Your task to perform on an android device: open chrome privacy settings Image 0: 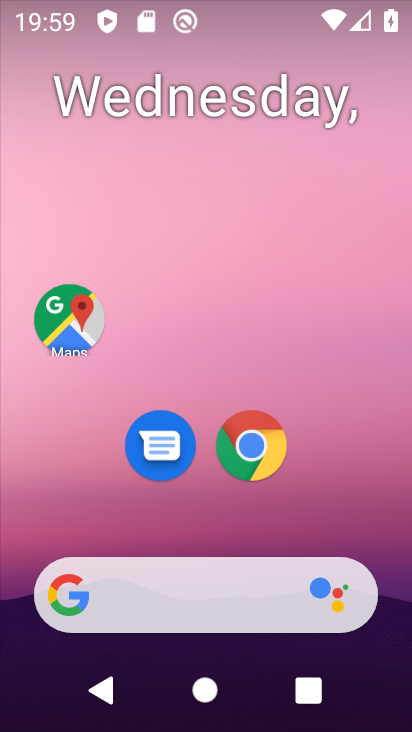
Step 0: drag from (337, 524) to (352, 278)
Your task to perform on an android device: open chrome privacy settings Image 1: 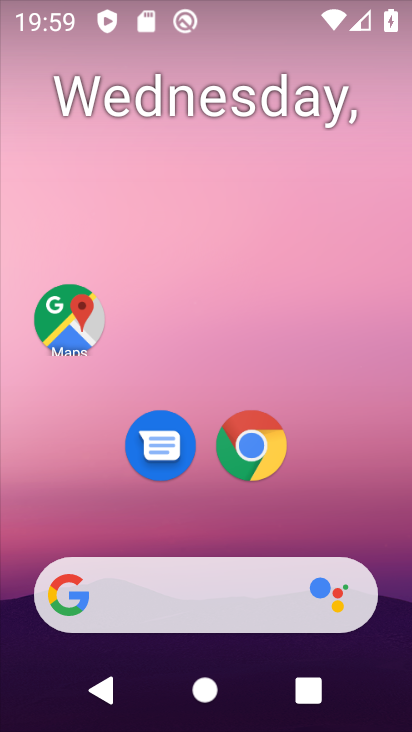
Step 1: click (241, 425)
Your task to perform on an android device: open chrome privacy settings Image 2: 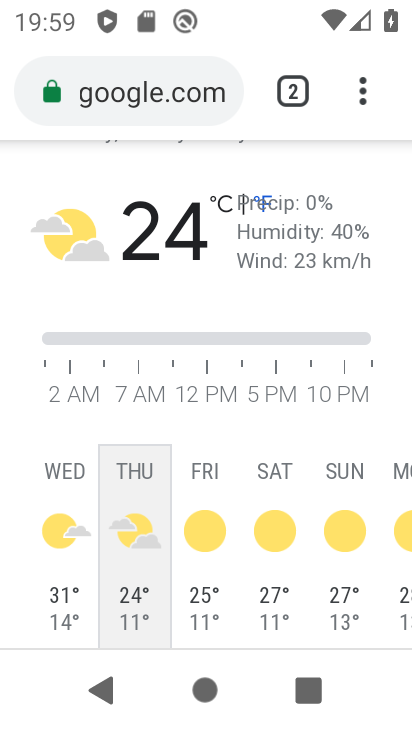
Step 2: click (357, 89)
Your task to perform on an android device: open chrome privacy settings Image 3: 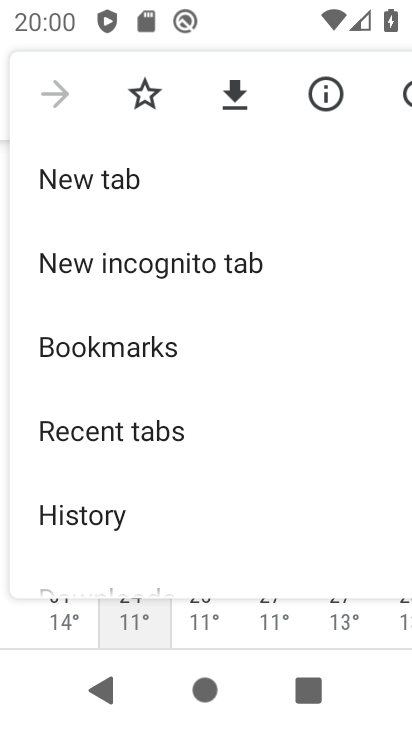
Step 3: drag from (203, 493) to (250, 261)
Your task to perform on an android device: open chrome privacy settings Image 4: 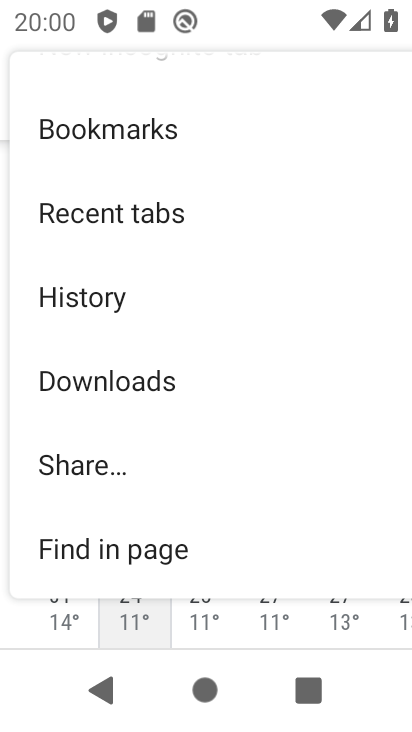
Step 4: drag from (200, 500) to (253, 193)
Your task to perform on an android device: open chrome privacy settings Image 5: 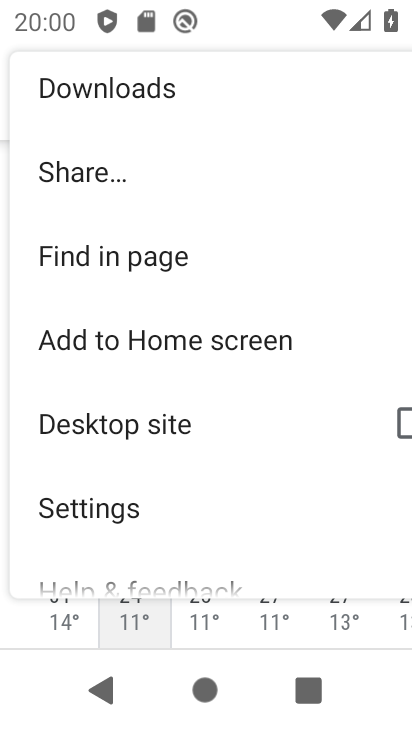
Step 5: click (121, 497)
Your task to perform on an android device: open chrome privacy settings Image 6: 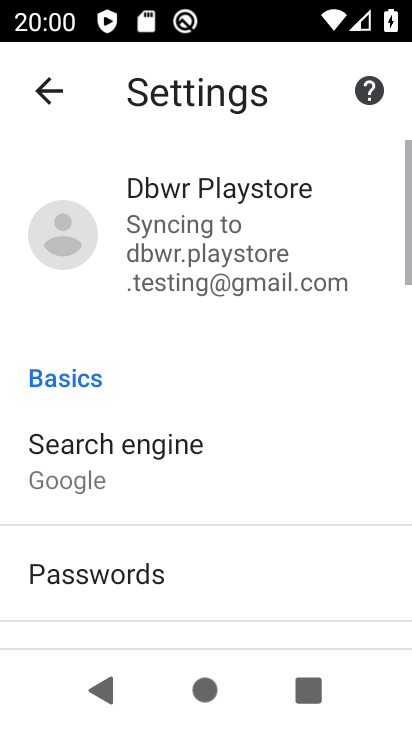
Step 6: drag from (100, 561) to (198, 141)
Your task to perform on an android device: open chrome privacy settings Image 7: 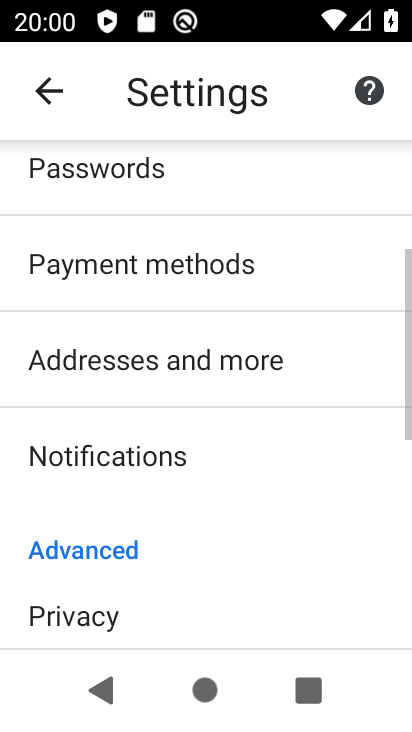
Step 7: drag from (161, 567) to (178, 429)
Your task to perform on an android device: open chrome privacy settings Image 8: 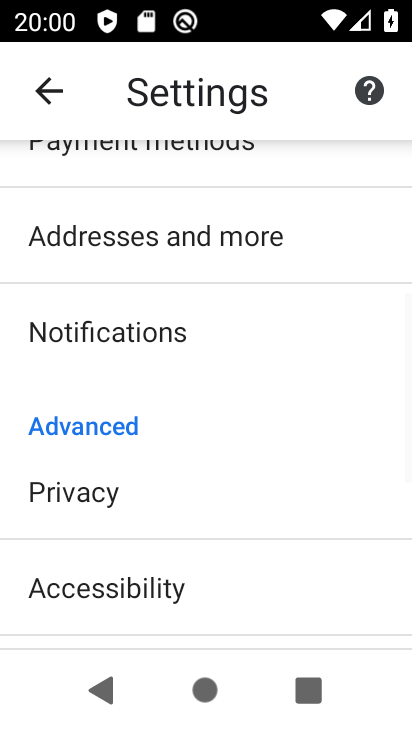
Step 8: click (109, 505)
Your task to perform on an android device: open chrome privacy settings Image 9: 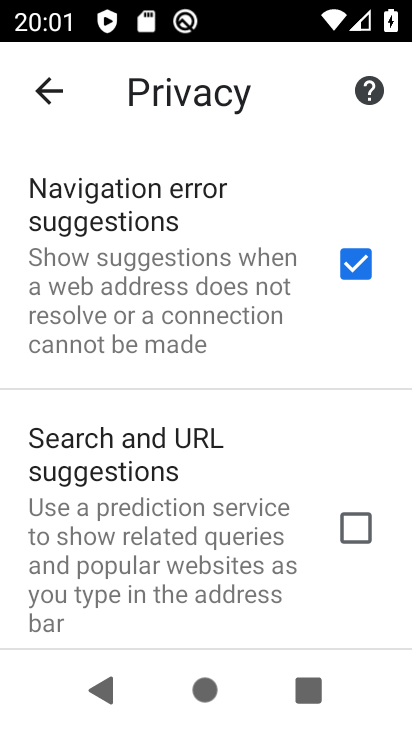
Step 9: task complete